Your task to perform on an android device: Empty the shopping cart on bestbuy. Add usb-b to the cart on bestbuy, then select checkout. Image 0: 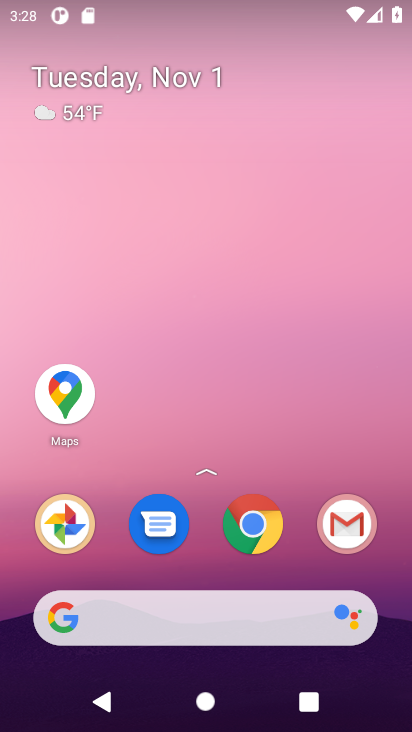
Step 0: click (252, 522)
Your task to perform on an android device: Empty the shopping cart on bestbuy. Add usb-b to the cart on bestbuy, then select checkout. Image 1: 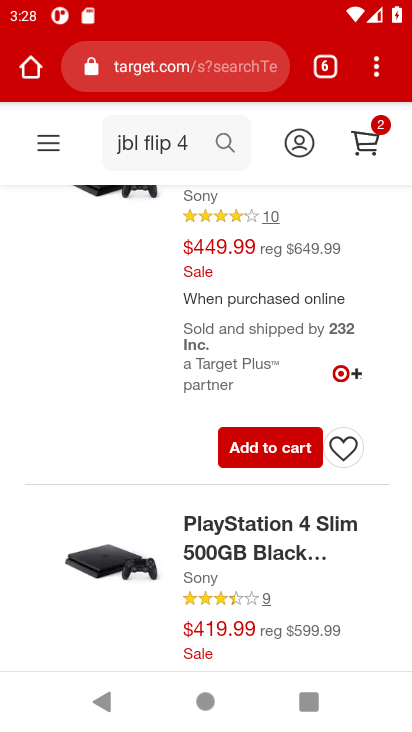
Step 1: click (202, 49)
Your task to perform on an android device: Empty the shopping cart on bestbuy. Add usb-b to the cart on bestbuy, then select checkout. Image 2: 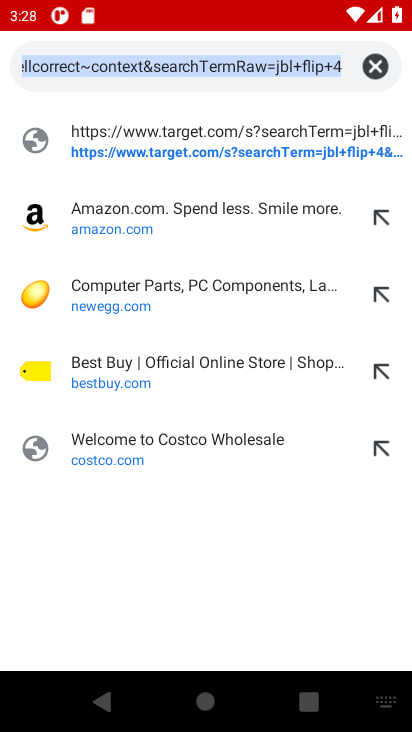
Step 2: click (92, 368)
Your task to perform on an android device: Empty the shopping cart on bestbuy. Add usb-b to the cart on bestbuy, then select checkout. Image 3: 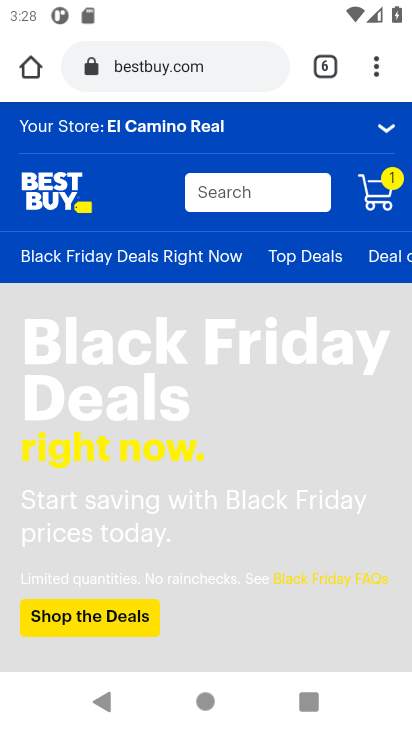
Step 3: click (376, 186)
Your task to perform on an android device: Empty the shopping cart on bestbuy. Add usb-b to the cart on bestbuy, then select checkout. Image 4: 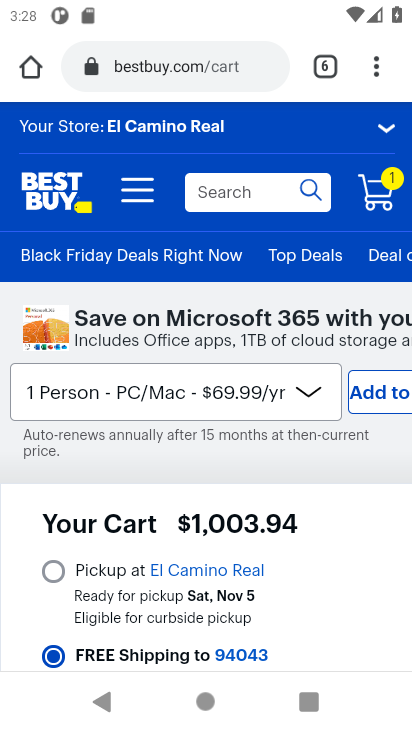
Step 4: drag from (325, 548) to (301, 215)
Your task to perform on an android device: Empty the shopping cart on bestbuy. Add usb-b to the cart on bestbuy, then select checkout. Image 5: 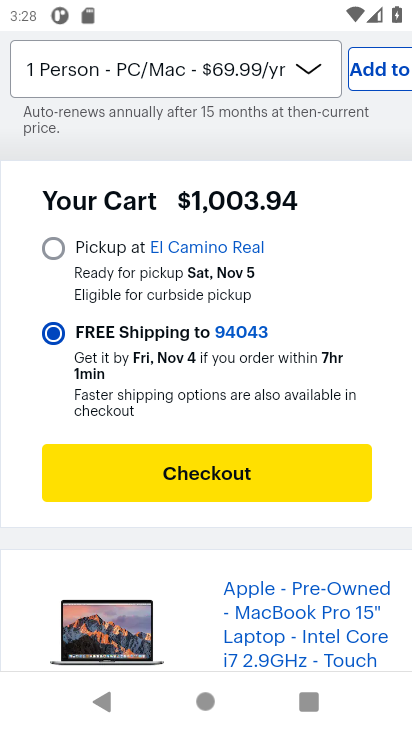
Step 5: drag from (257, 545) to (265, 287)
Your task to perform on an android device: Empty the shopping cart on bestbuy. Add usb-b to the cart on bestbuy, then select checkout. Image 6: 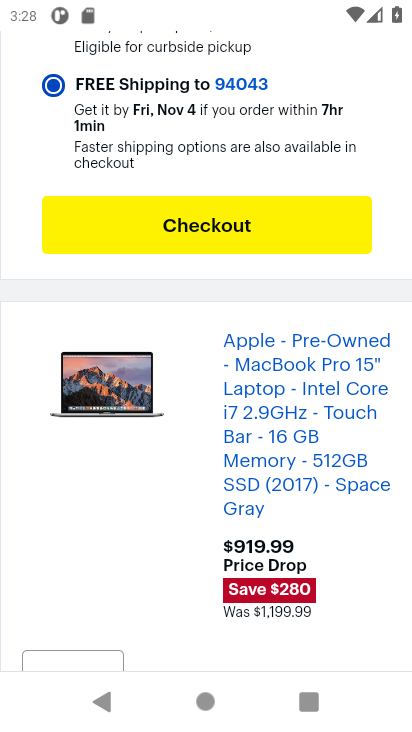
Step 6: drag from (206, 602) to (207, 267)
Your task to perform on an android device: Empty the shopping cart on bestbuy. Add usb-b to the cart on bestbuy, then select checkout. Image 7: 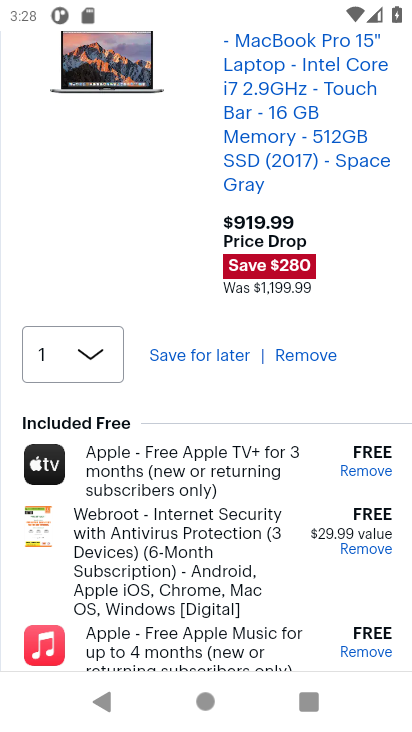
Step 7: click (314, 355)
Your task to perform on an android device: Empty the shopping cart on bestbuy. Add usb-b to the cart on bestbuy, then select checkout. Image 8: 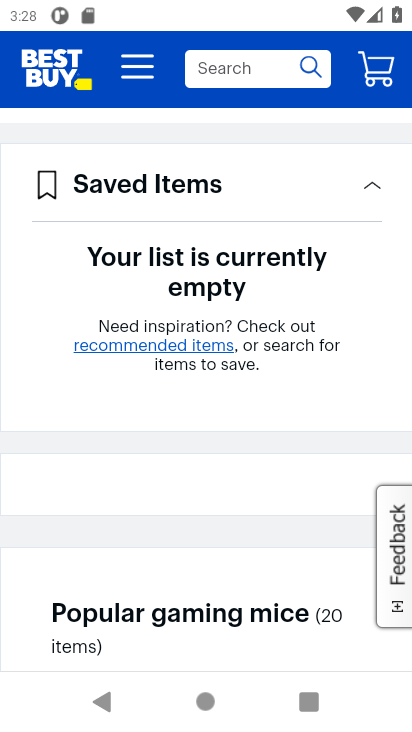
Step 8: click (227, 65)
Your task to perform on an android device: Empty the shopping cart on bestbuy. Add usb-b to the cart on bestbuy, then select checkout. Image 9: 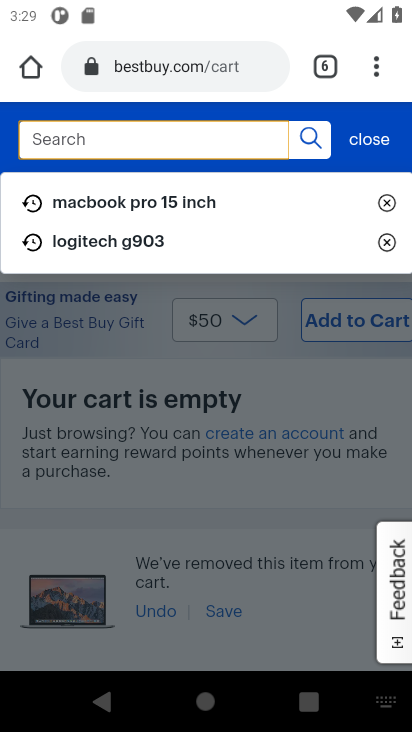
Step 9: type "usb-b"
Your task to perform on an android device: Empty the shopping cart on bestbuy. Add usb-b to the cart on bestbuy, then select checkout. Image 10: 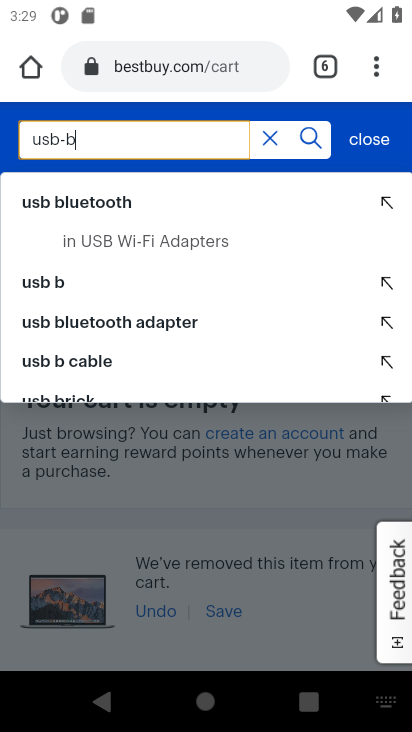
Step 10: click (43, 281)
Your task to perform on an android device: Empty the shopping cart on bestbuy. Add usb-b to the cart on bestbuy, then select checkout. Image 11: 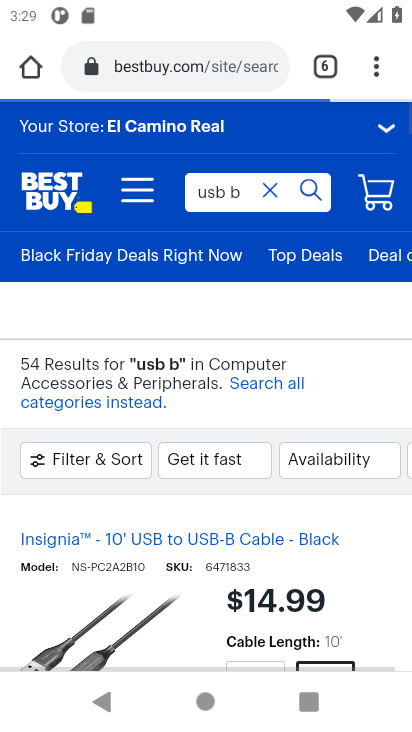
Step 11: drag from (248, 582) to (233, 294)
Your task to perform on an android device: Empty the shopping cart on bestbuy. Add usb-b to the cart on bestbuy, then select checkout. Image 12: 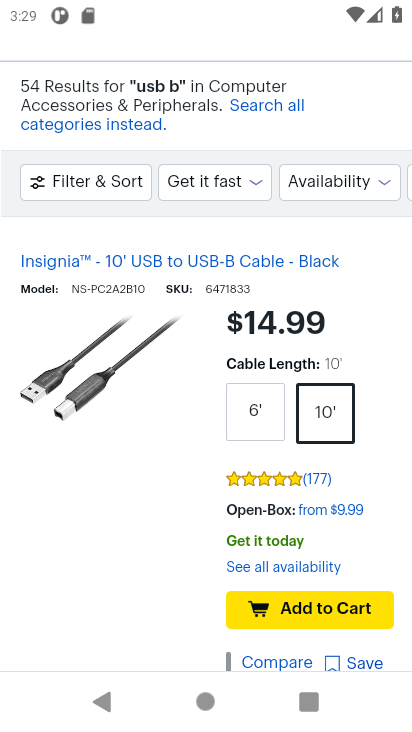
Step 12: click (317, 609)
Your task to perform on an android device: Empty the shopping cart on bestbuy. Add usb-b to the cart on bestbuy, then select checkout. Image 13: 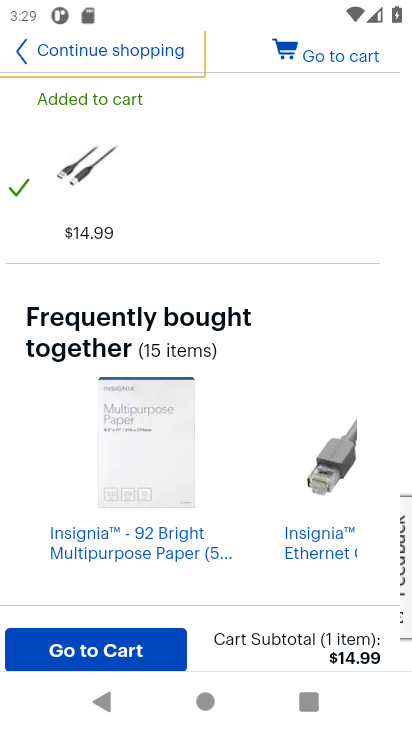
Step 13: click (333, 52)
Your task to perform on an android device: Empty the shopping cart on bestbuy. Add usb-b to the cart on bestbuy, then select checkout. Image 14: 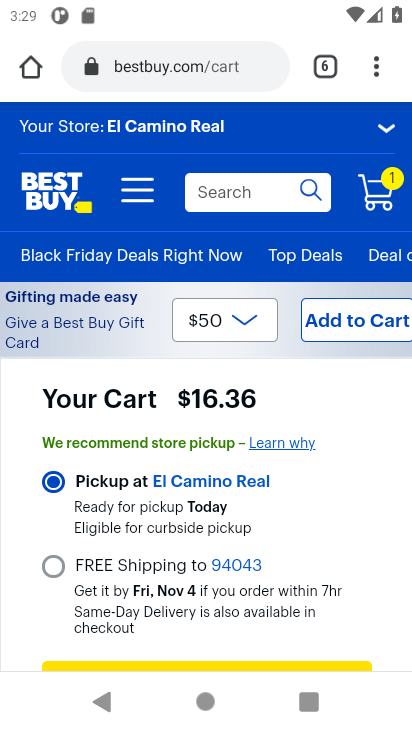
Step 14: drag from (305, 659) to (299, 337)
Your task to perform on an android device: Empty the shopping cart on bestbuy. Add usb-b to the cart on bestbuy, then select checkout. Image 15: 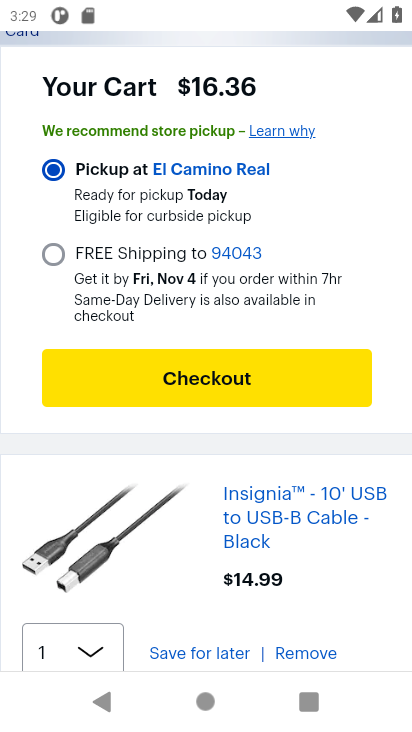
Step 15: click (207, 371)
Your task to perform on an android device: Empty the shopping cart on bestbuy. Add usb-b to the cart on bestbuy, then select checkout. Image 16: 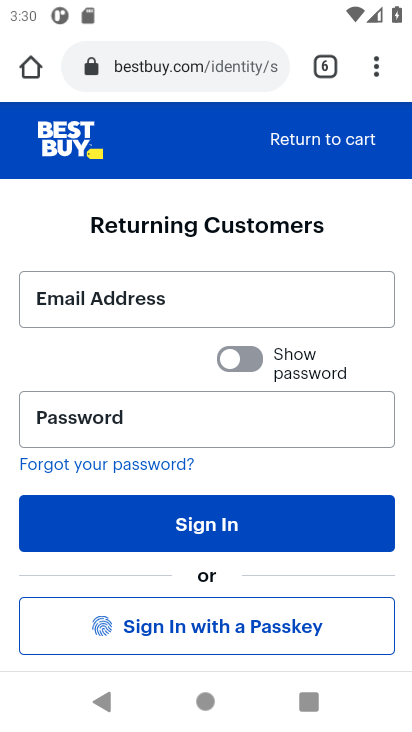
Step 16: task complete